Your task to perform on an android device: Go to battery settings Image 0: 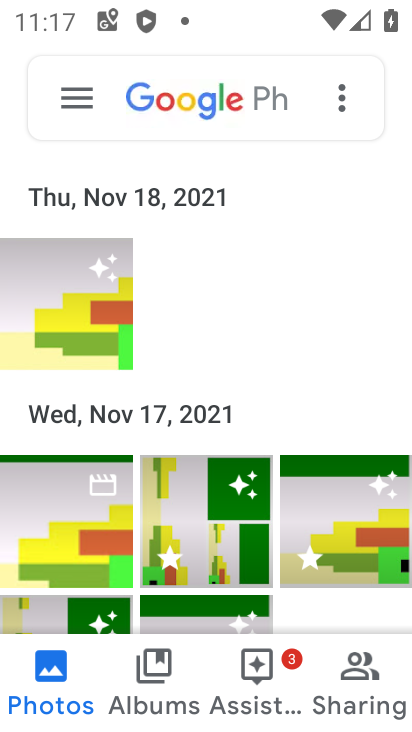
Step 0: press home button
Your task to perform on an android device: Go to battery settings Image 1: 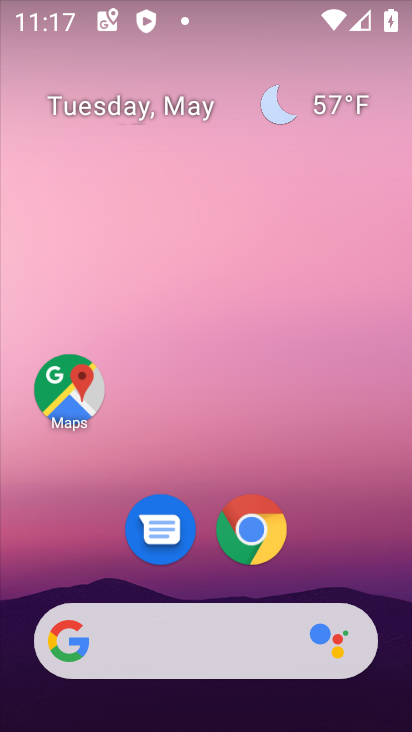
Step 1: drag from (211, 586) to (224, 41)
Your task to perform on an android device: Go to battery settings Image 2: 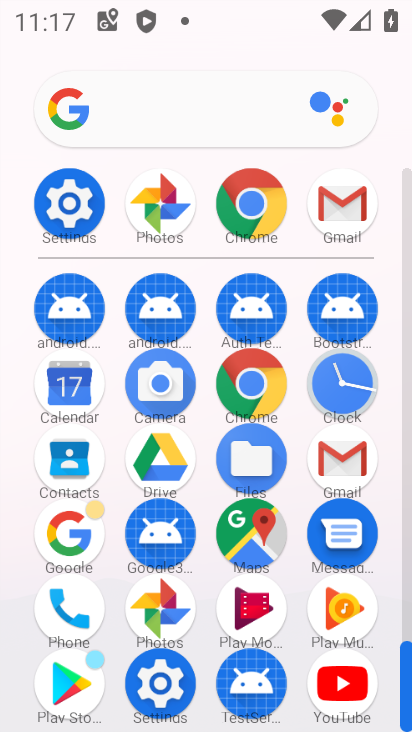
Step 2: click (51, 218)
Your task to perform on an android device: Go to battery settings Image 3: 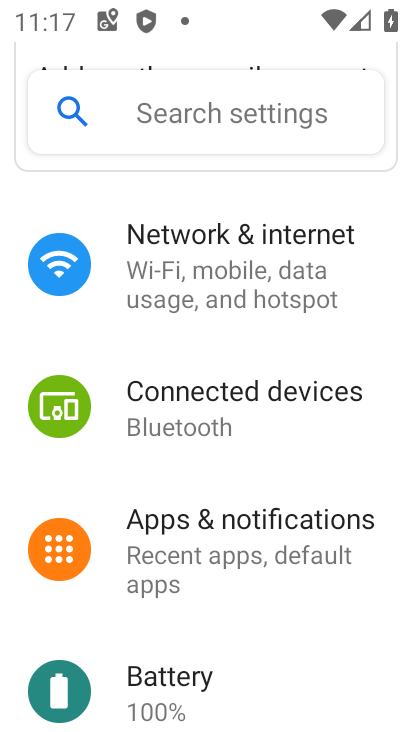
Step 3: click (104, 696)
Your task to perform on an android device: Go to battery settings Image 4: 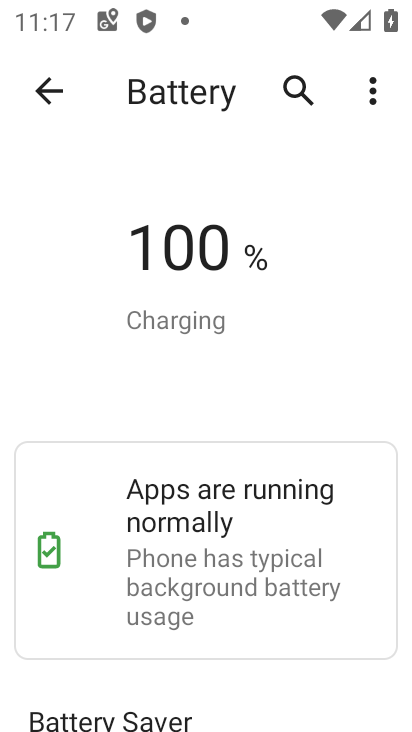
Step 4: click (387, 78)
Your task to perform on an android device: Go to battery settings Image 5: 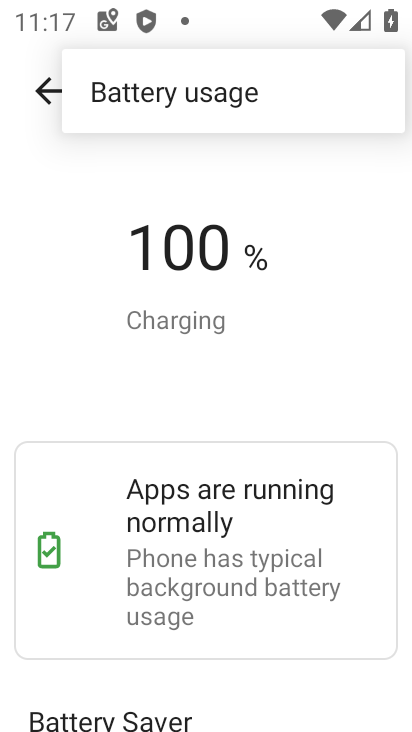
Step 5: click (225, 113)
Your task to perform on an android device: Go to battery settings Image 6: 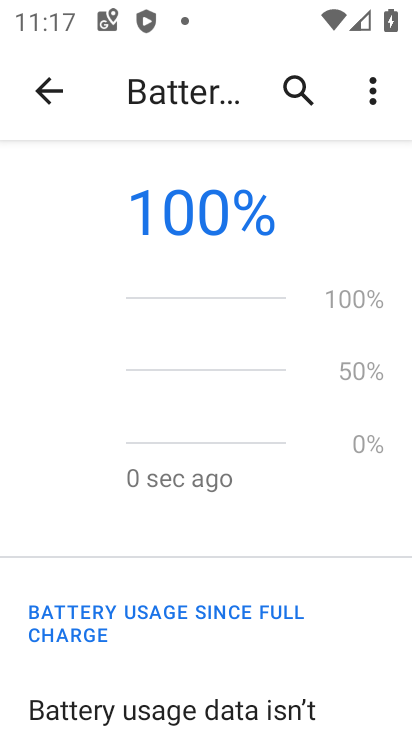
Step 6: task complete